Your task to perform on an android device: check data usage Image 0: 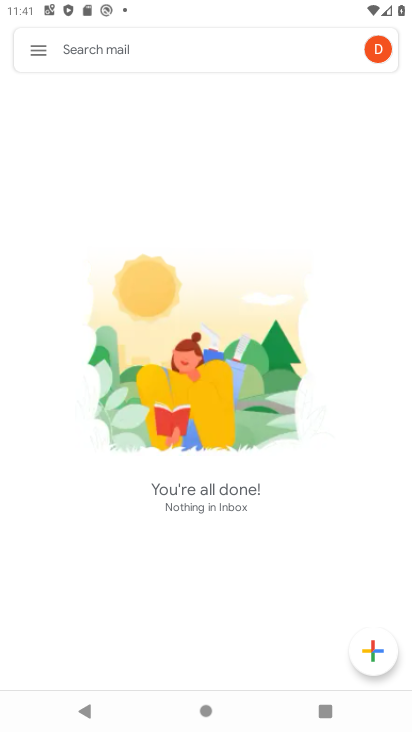
Step 0: press home button
Your task to perform on an android device: check data usage Image 1: 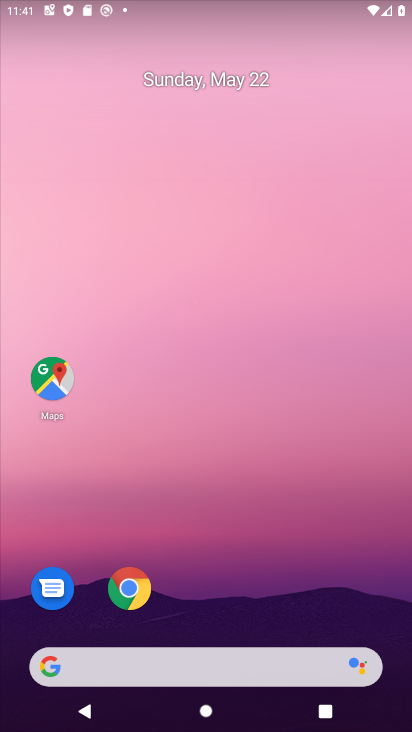
Step 1: drag from (234, 690) to (251, 171)
Your task to perform on an android device: check data usage Image 2: 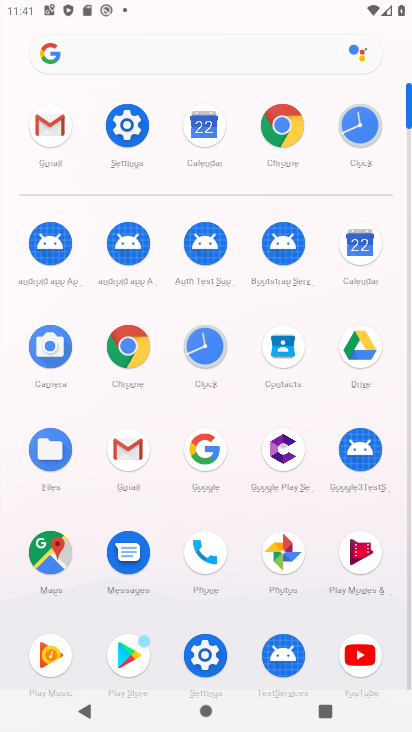
Step 2: click (131, 127)
Your task to perform on an android device: check data usage Image 3: 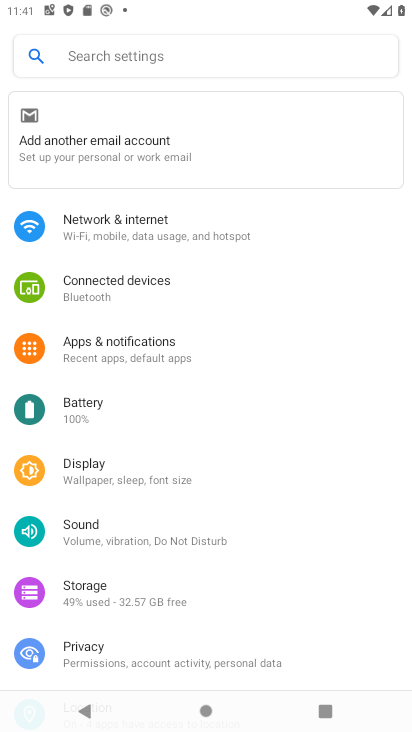
Step 3: click (160, 56)
Your task to perform on an android device: check data usage Image 4: 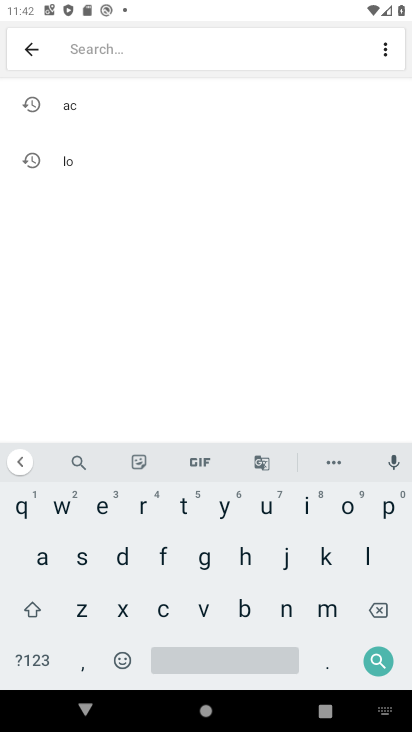
Step 4: click (122, 557)
Your task to perform on an android device: check data usage Image 5: 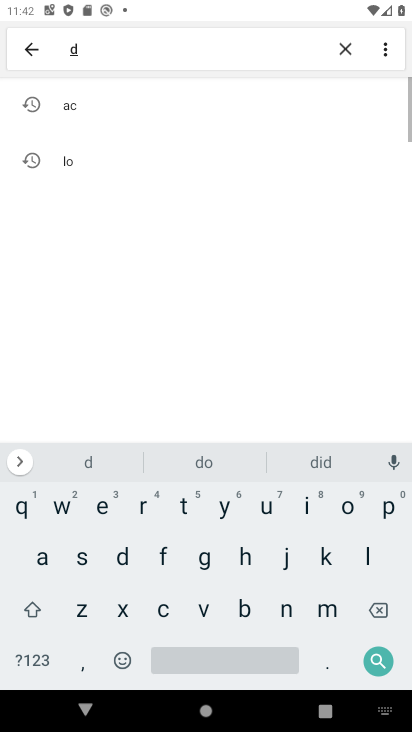
Step 5: click (35, 557)
Your task to perform on an android device: check data usage Image 6: 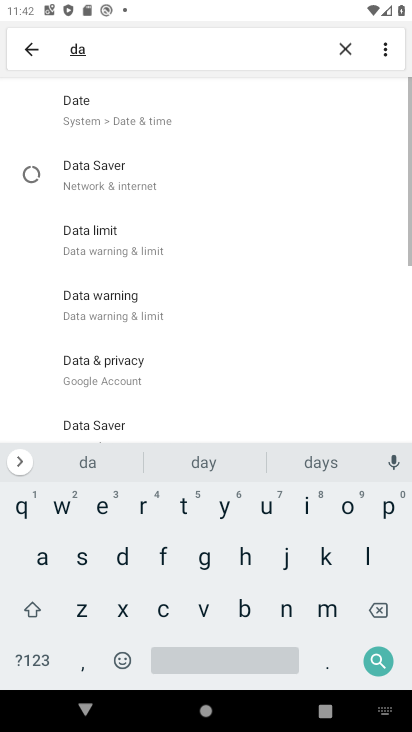
Step 6: click (183, 504)
Your task to perform on an android device: check data usage Image 7: 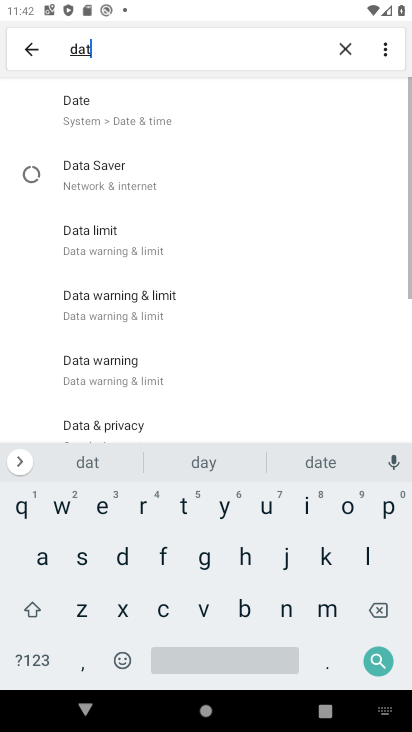
Step 7: click (34, 554)
Your task to perform on an android device: check data usage Image 8: 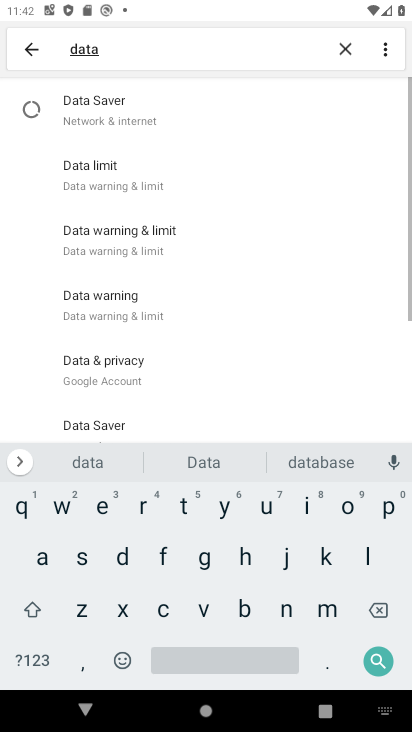
Step 8: click (220, 664)
Your task to perform on an android device: check data usage Image 9: 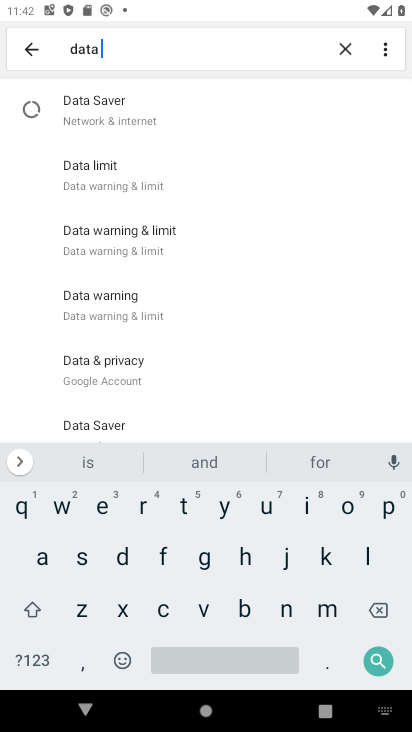
Step 9: click (275, 508)
Your task to perform on an android device: check data usage Image 10: 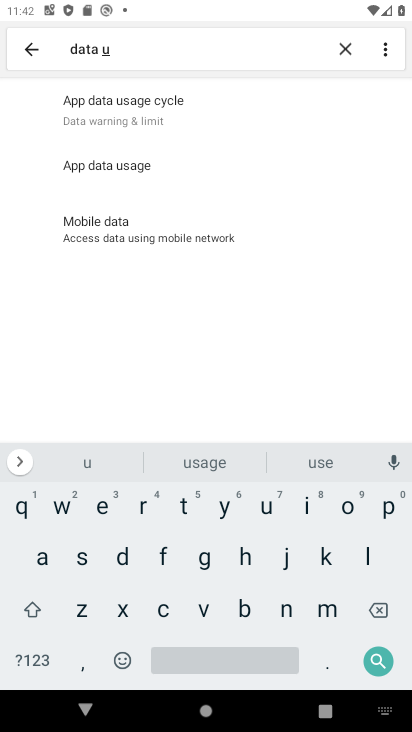
Step 10: click (132, 161)
Your task to perform on an android device: check data usage Image 11: 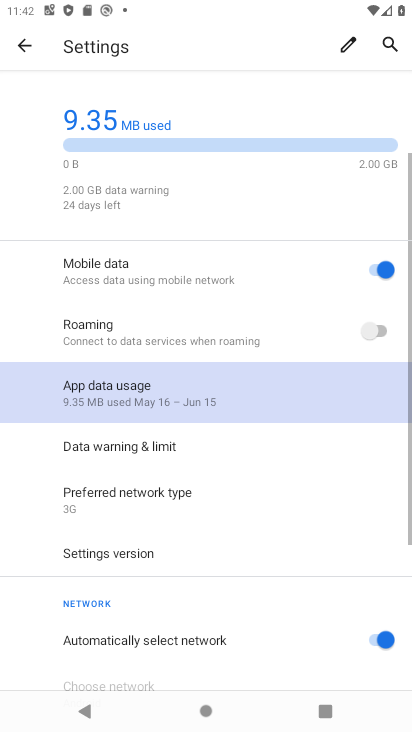
Step 11: task complete